Your task to perform on an android device: Open Google Chrome Image 0: 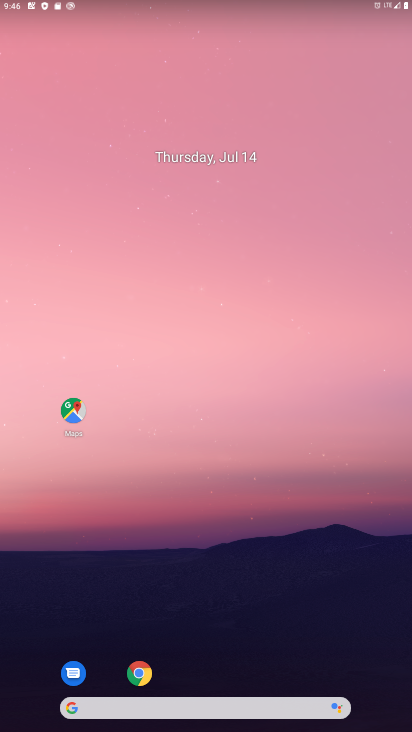
Step 0: click (140, 678)
Your task to perform on an android device: Open Google Chrome Image 1: 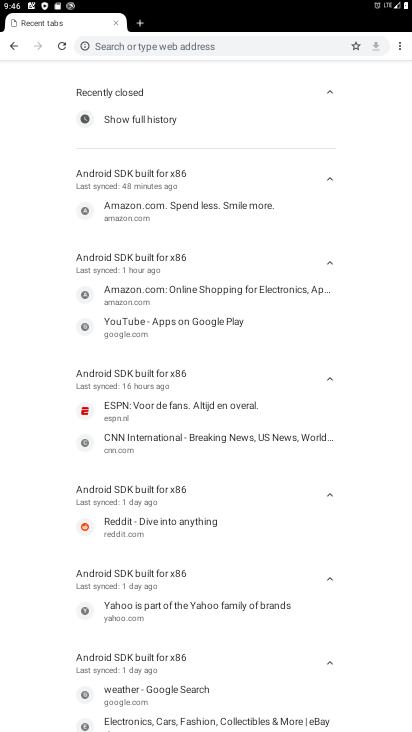
Step 1: task complete